Your task to perform on an android device: Go to Amazon Image 0: 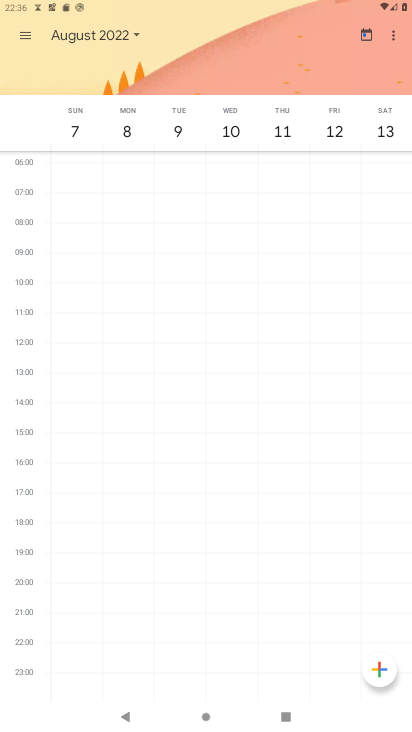
Step 0: press home button
Your task to perform on an android device: Go to Amazon Image 1: 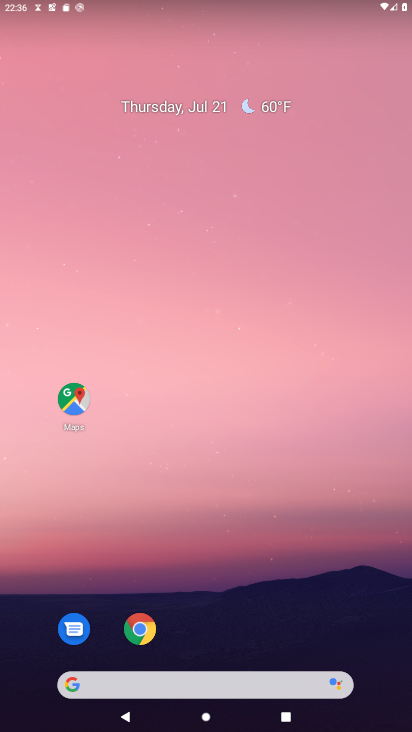
Step 1: click (153, 629)
Your task to perform on an android device: Go to Amazon Image 2: 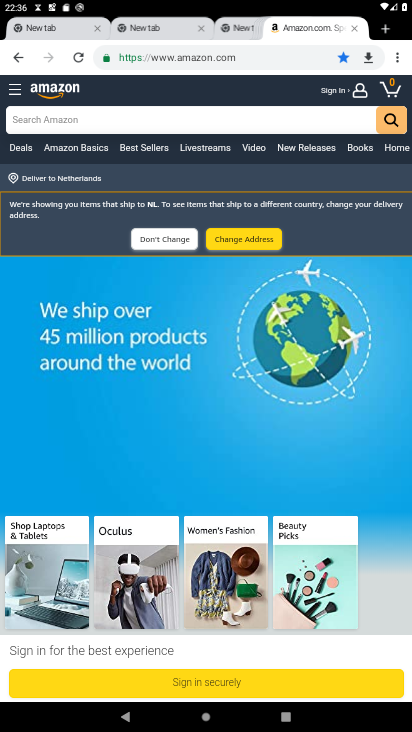
Step 2: task complete